Your task to perform on an android device: Open Google Chrome and open the bookmarks view Image 0: 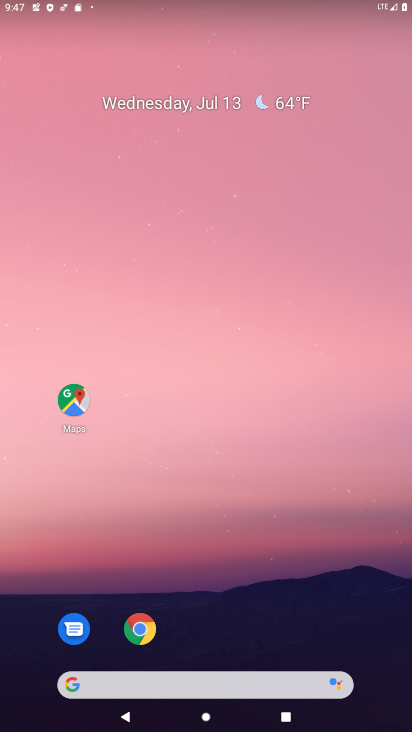
Step 0: drag from (230, 593) to (233, 252)
Your task to perform on an android device: Open Google Chrome and open the bookmarks view Image 1: 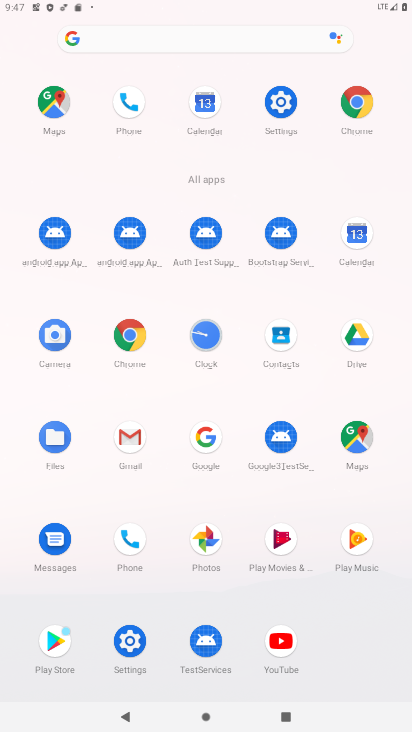
Step 1: click (354, 92)
Your task to perform on an android device: Open Google Chrome and open the bookmarks view Image 2: 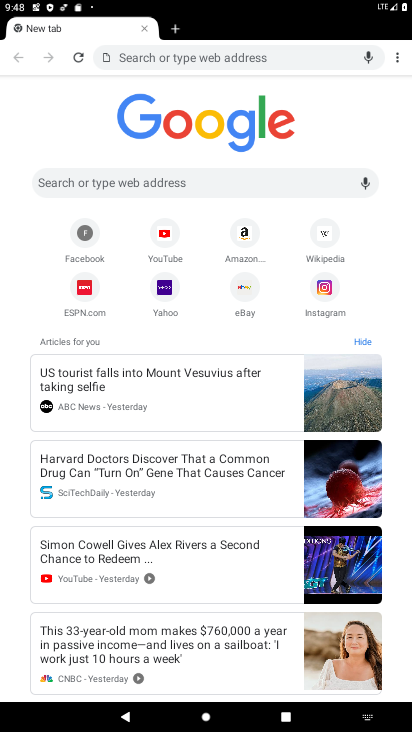
Step 2: click (397, 56)
Your task to perform on an android device: Open Google Chrome and open the bookmarks view Image 3: 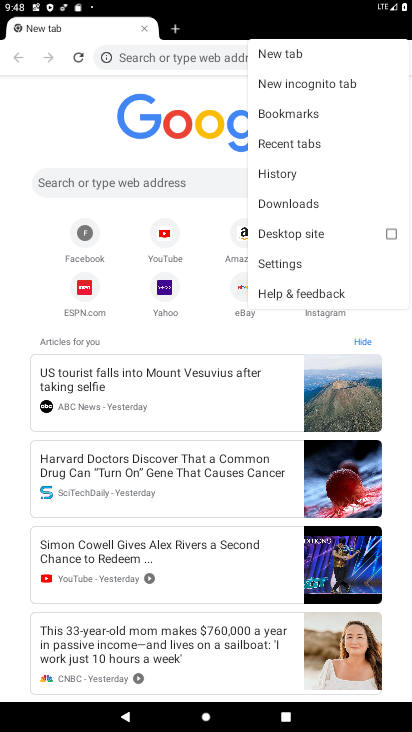
Step 3: click (317, 110)
Your task to perform on an android device: Open Google Chrome and open the bookmarks view Image 4: 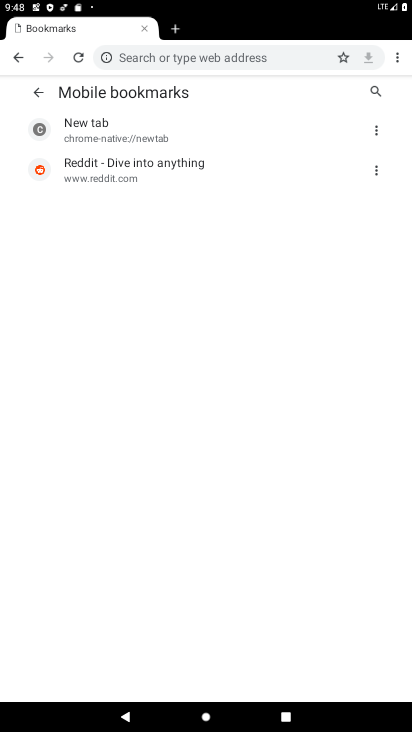
Step 4: task complete